Your task to perform on an android device: Open privacy settings Image 0: 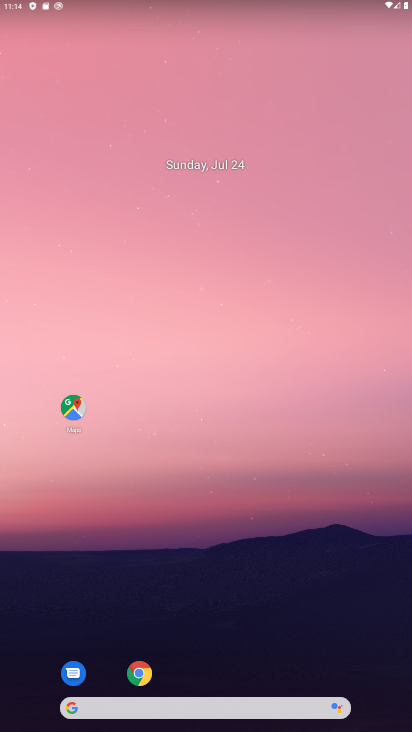
Step 0: drag from (205, 695) to (195, 175)
Your task to perform on an android device: Open privacy settings Image 1: 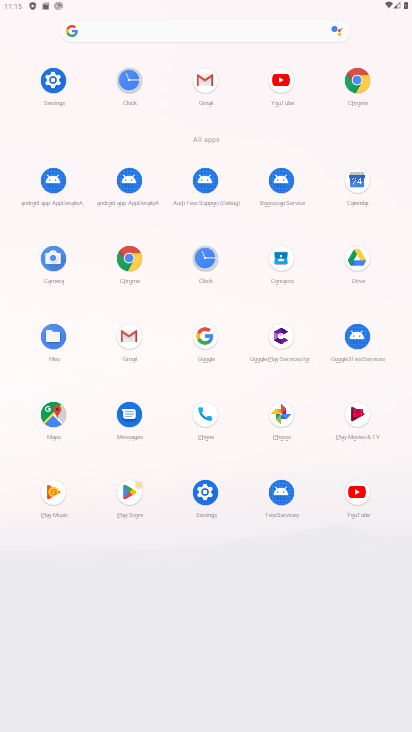
Step 1: click (55, 80)
Your task to perform on an android device: Open privacy settings Image 2: 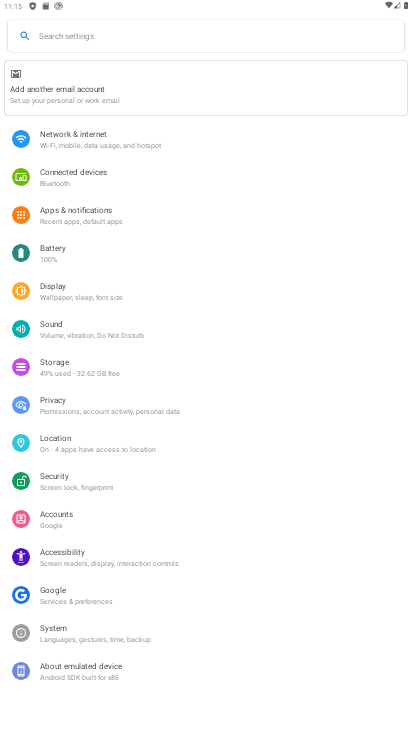
Step 2: click (56, 407)
Your task to perform on an android device: Open privacy settings Image 3: 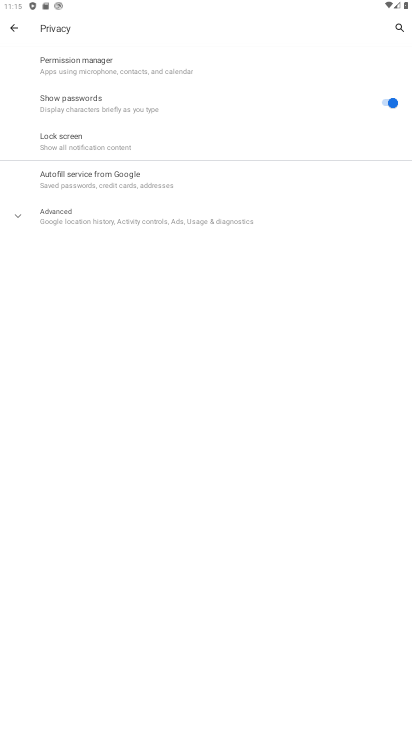
Step 3: task complete